Your task to perform on an android device: change keyboard looks Image 0: 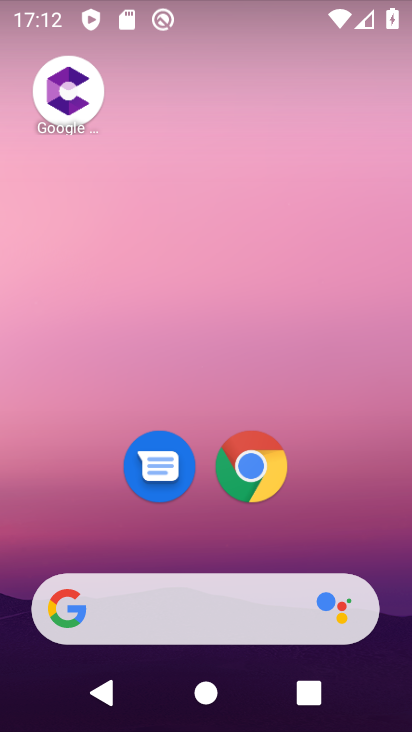
Step 0: drag from (347, 480) to (258, 222)
Your task to perform on an android device: change keyboard looks Image 1: 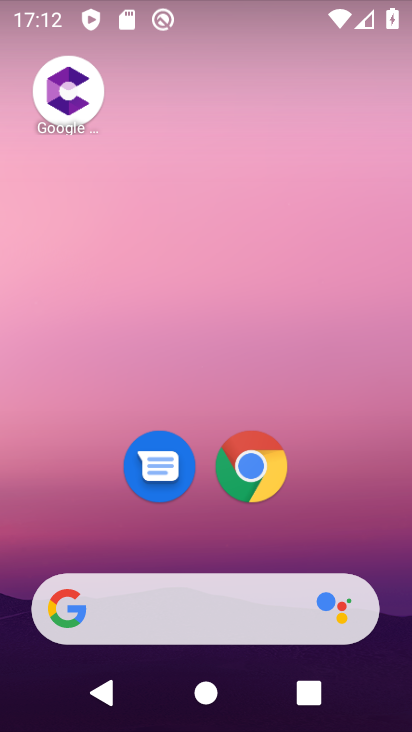
Step 1: drag from (336, 447) to (210, 26)
Your task to perform on an android device: change keyboard looks Image 2: 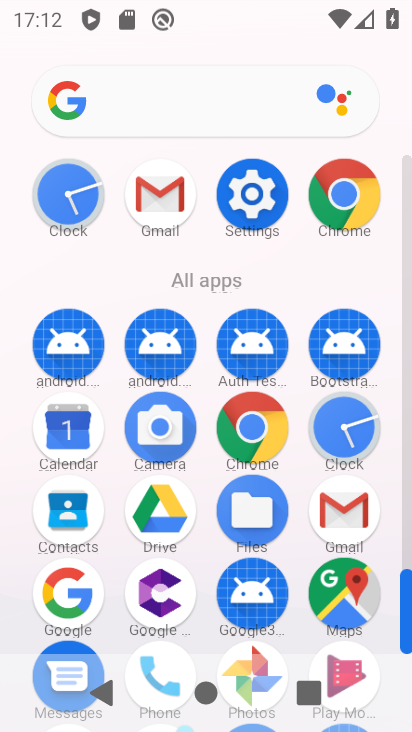
Step 2: click (250, 194)
Your task to perform on an android device: change keyboard looks Image 3: 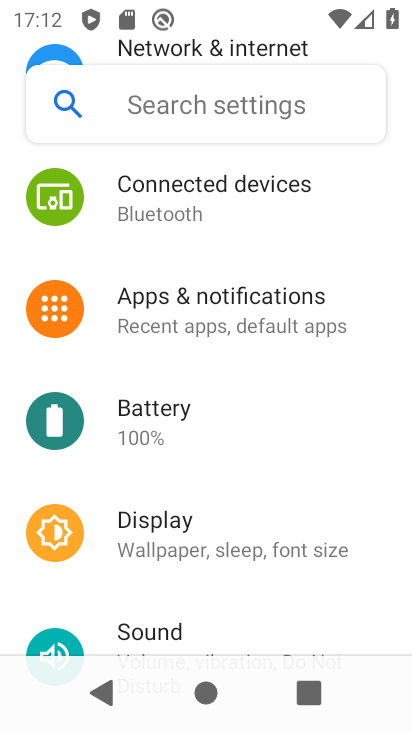
Step 3: drag from (277, 495) to (206, 168)
Your task to perform on an android device: change keyboard looks Image 4: 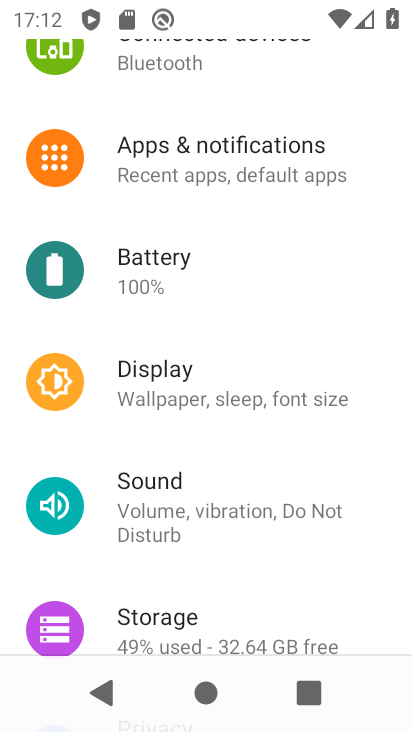
Step 4: drag from (231, 556) to (192, 175)
Your task to perform on an android device: change keyboard looks Image 5: 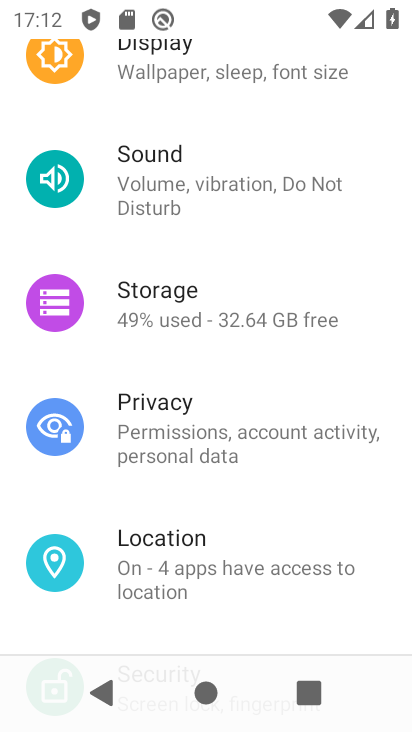
Step 5: drag from (227, 495) to (174, 225)
Your task to perform on an android device: change keyboard looks Image 6: 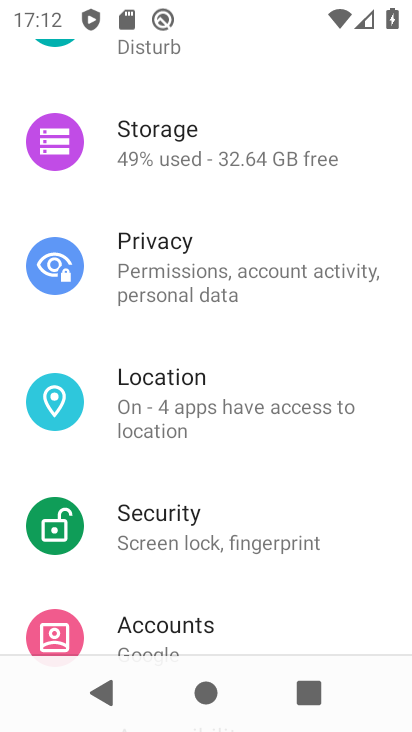
Step 6: drag from (218, 485) to (198, 136)
Your task to perform on an android device: change keyboard looks Image 7: 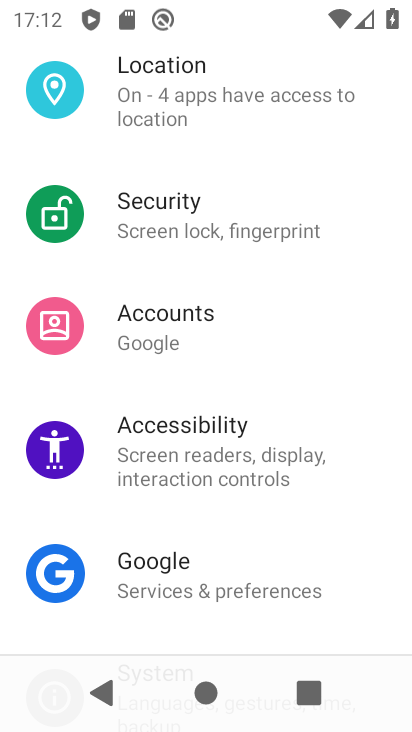
Step 7: drag from (252, 526) to (228, 103)
Your task to perform on an android device: change keyboard looks Image 8: 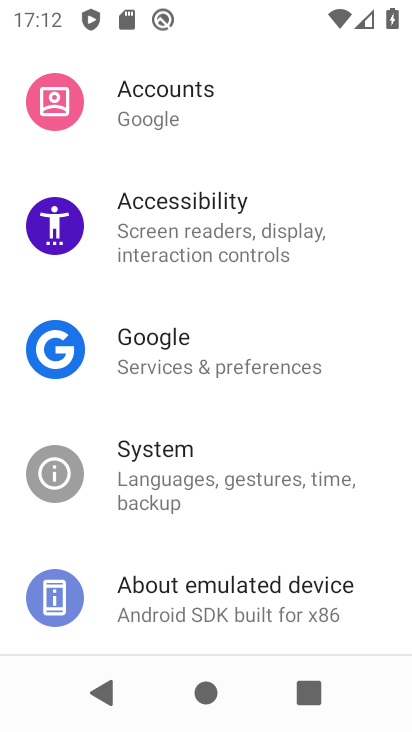
Step 8: click (155, 447)
Your task to perform on an android device: change keyboard looks Image 9: 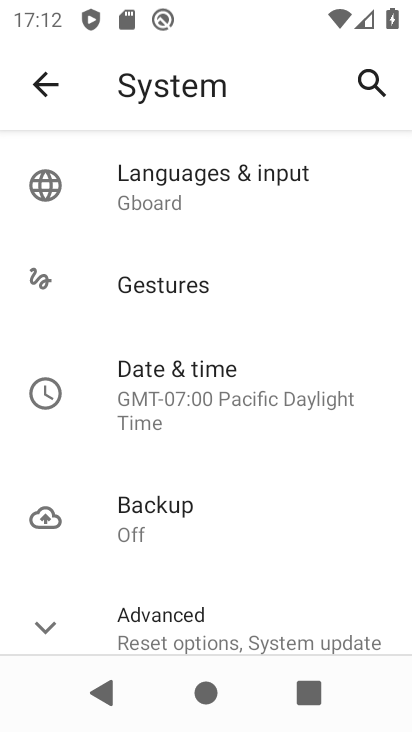
Step 9: click (153, 170)
Your task to perform on an android device: change keyboard looks Image 10: 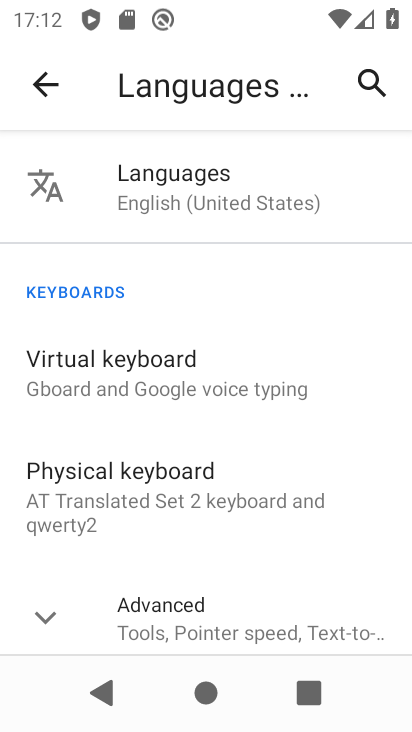
Step 10: click (135, 368)
Your task to perform on an android device: change keyboard looks Image 11: 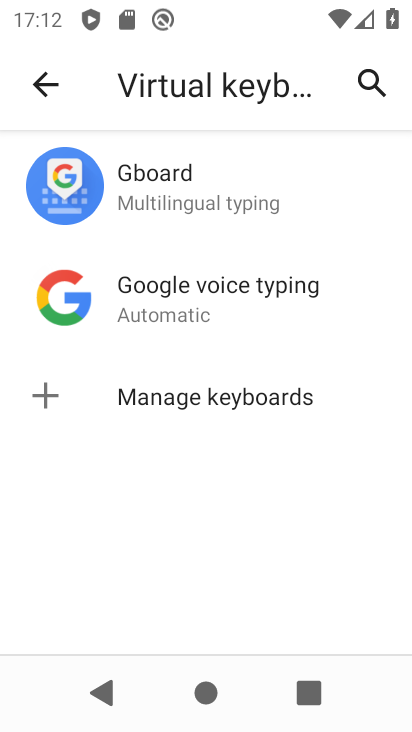
Step 11: click (138, 167)
Your task to perform on an android device: change keyboard looks Image 12: 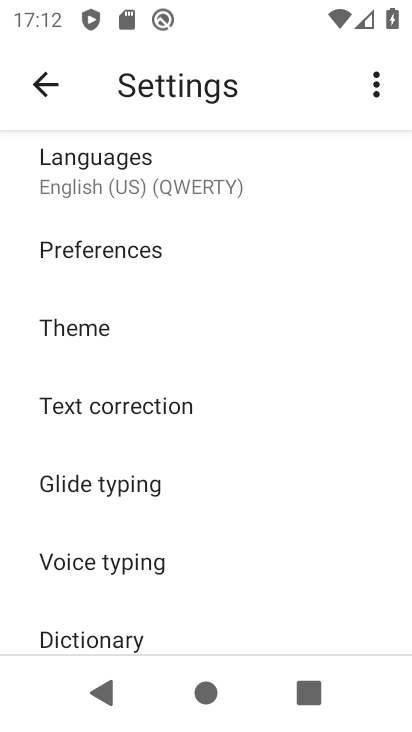
Step 12: click (74, 317)
Your task to perform on an android device: change keyboard looks Image 13: 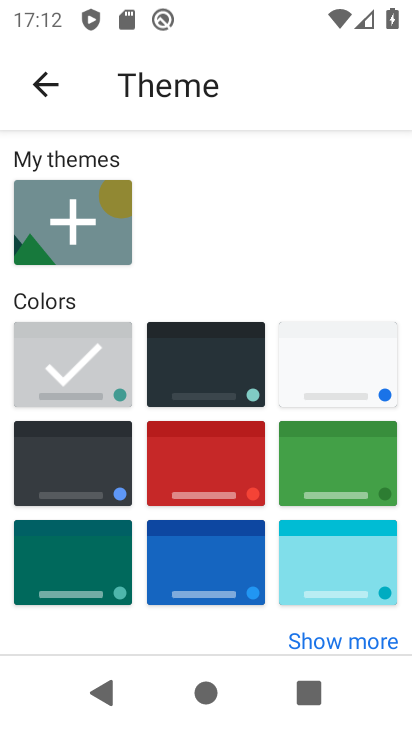
Step 13: click (192, 368)
Your task to perform on an android device: change keyboard looks Image 14: 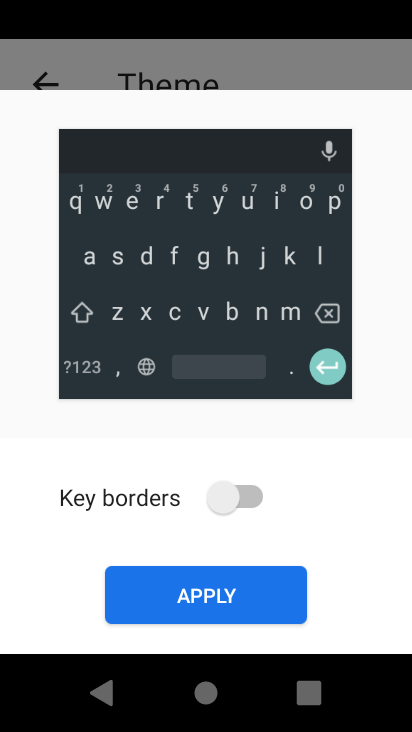
Step 14: click (230, 586)
Your task to perform on an android device: change keyboard looks Image 15: 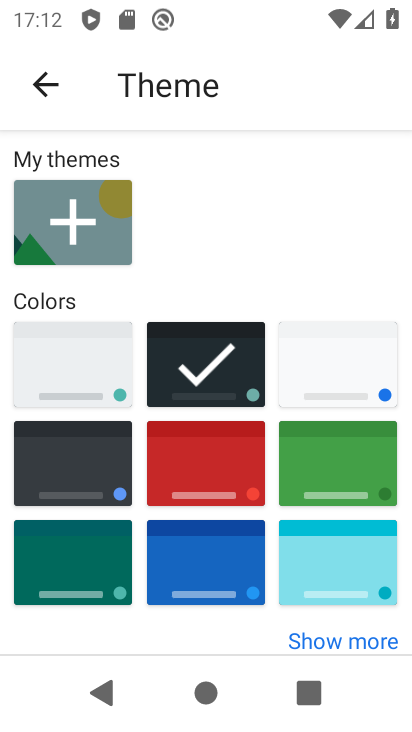
Step 15: task complete